Your task to perform on an android device: Go to privacy settings Image 0: 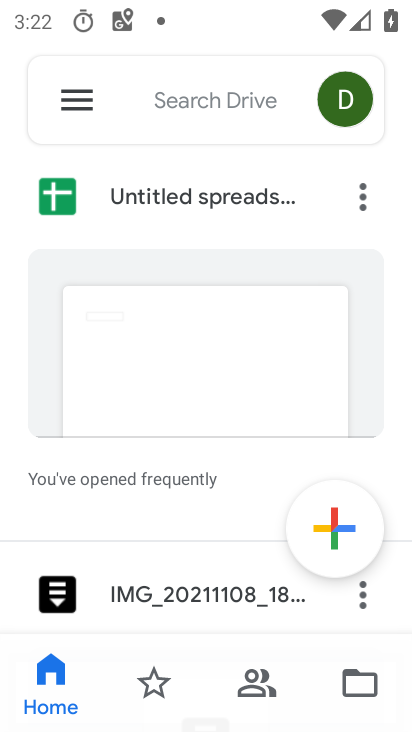
Step 0: press home button
Your task to perform on an android device: Go to privacy settings Image 1: 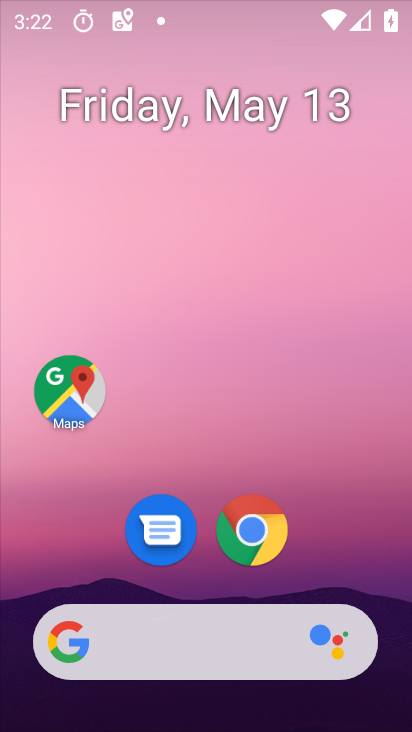
Step 1: drag from (369, 537) to (358, 116)
Your task to perform on an android device: Go to privacy settings Image 2: 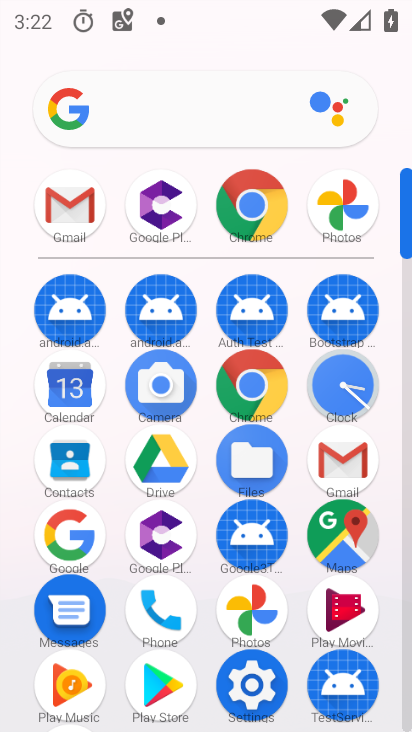
Step 2: click (253, 690)
Your task to perform on an android device: Go to privacy settings Image 3: 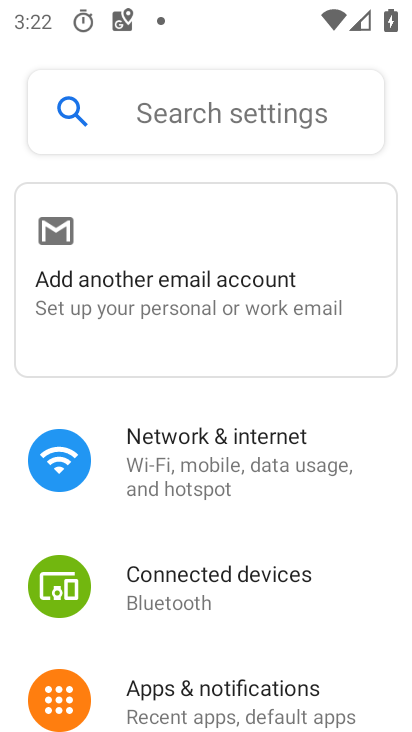
Step 3: drag from (253, 651) to (285, 101)
Your task to perform on an android device: Go to privacy settings Image 4: 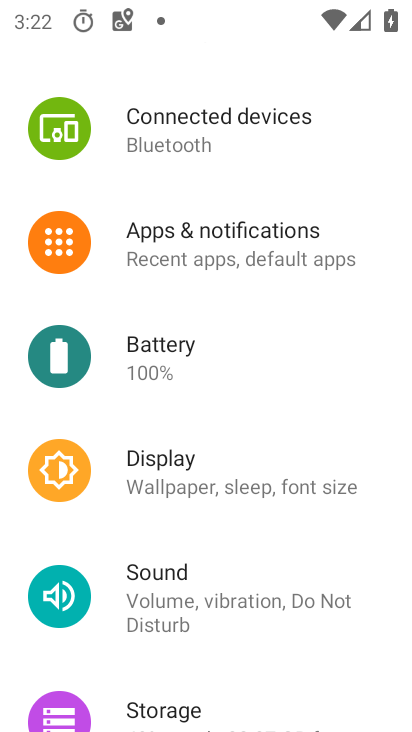
Step 4: drag from (201, 628) to (265, 193)
Your task to perform on an android device: Go to privacy settings Image 5: 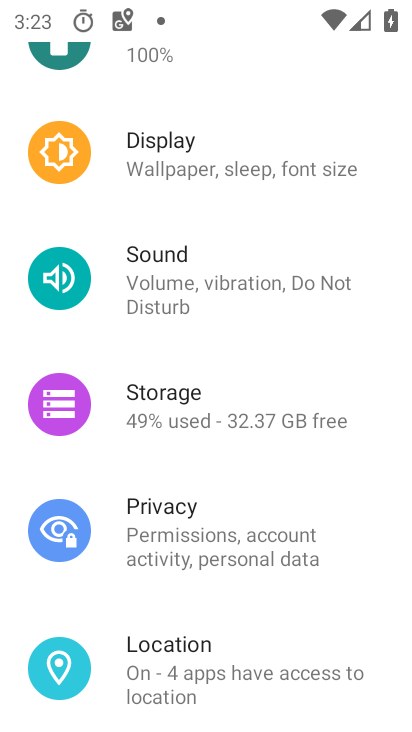
Step 5: drag from (190, 598) to (248, 208)
Your task to perform on an android device: Go to privacy settings Image 6: 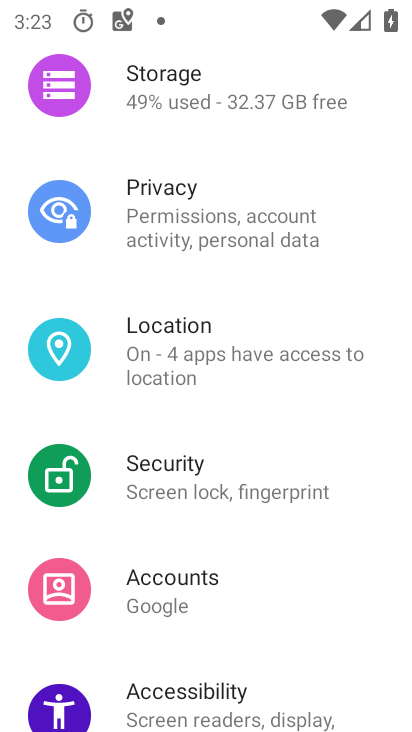
Step 6: click (216, 221)
Your task to perform on an android device: Go to privacy settings Image 7: 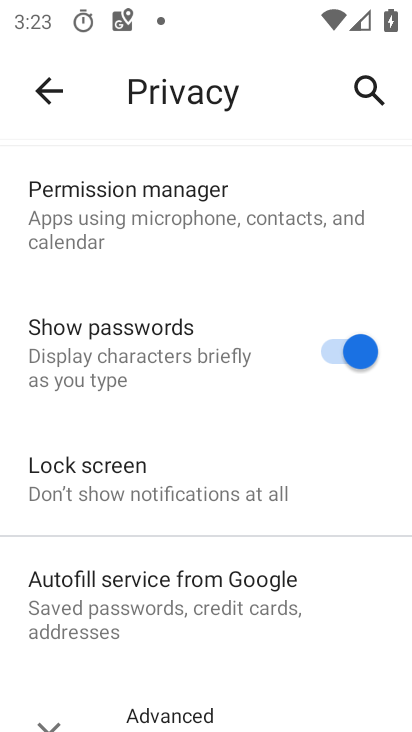
Step 7: task complete